Your task to perform on an android device: Open display settings Image 0: 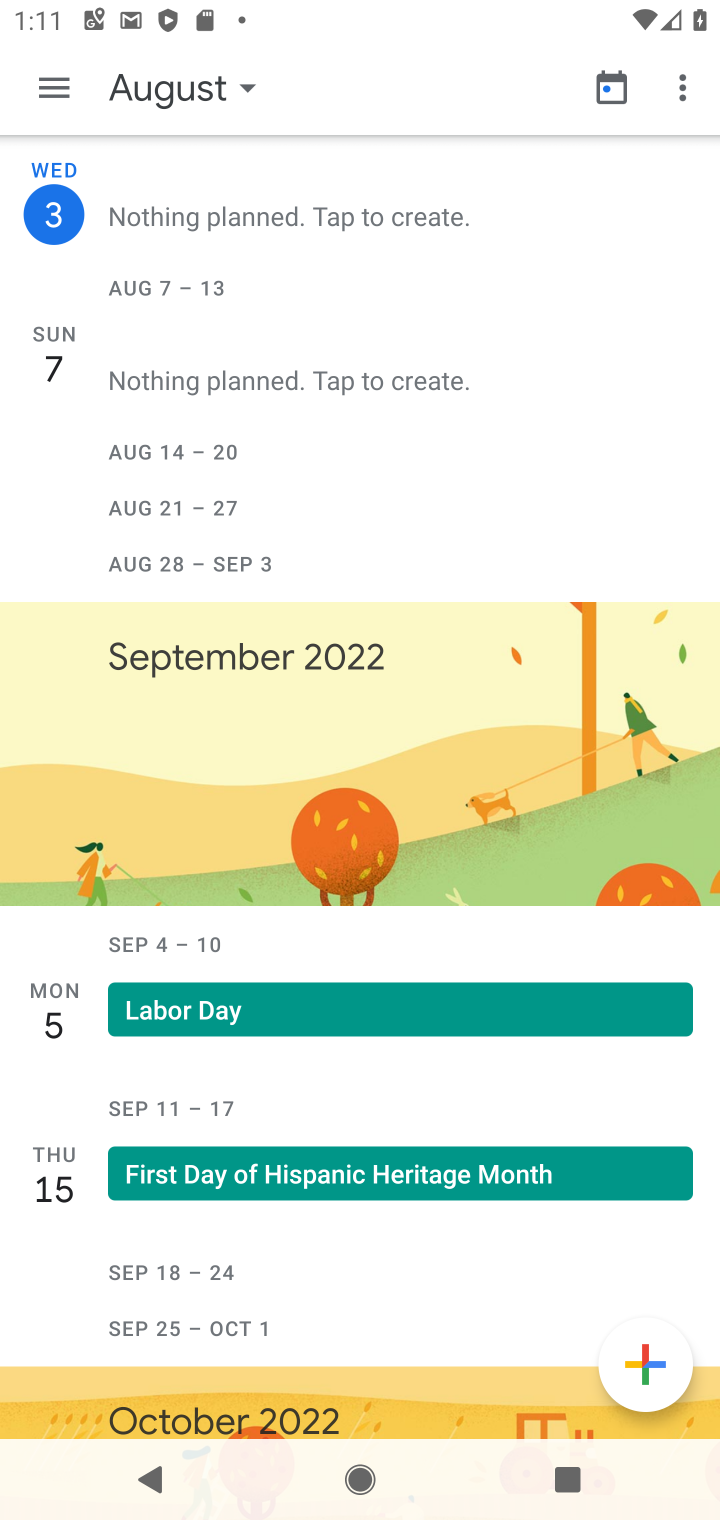
Step 0: press home button
Your task to perform on an android device: Open display settings Image 1: 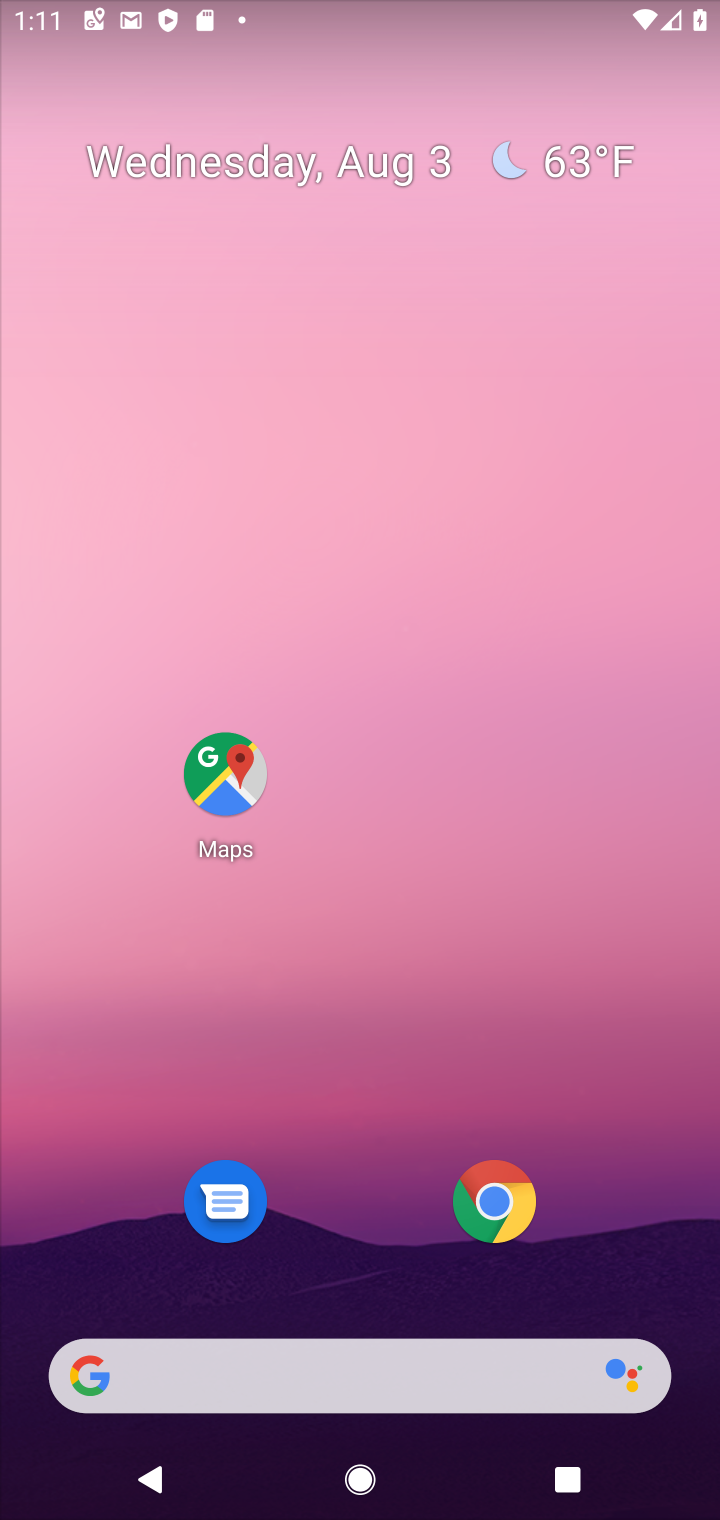
Step 1: press home button
Your task to perform on an android device: Open display settings Image 2: 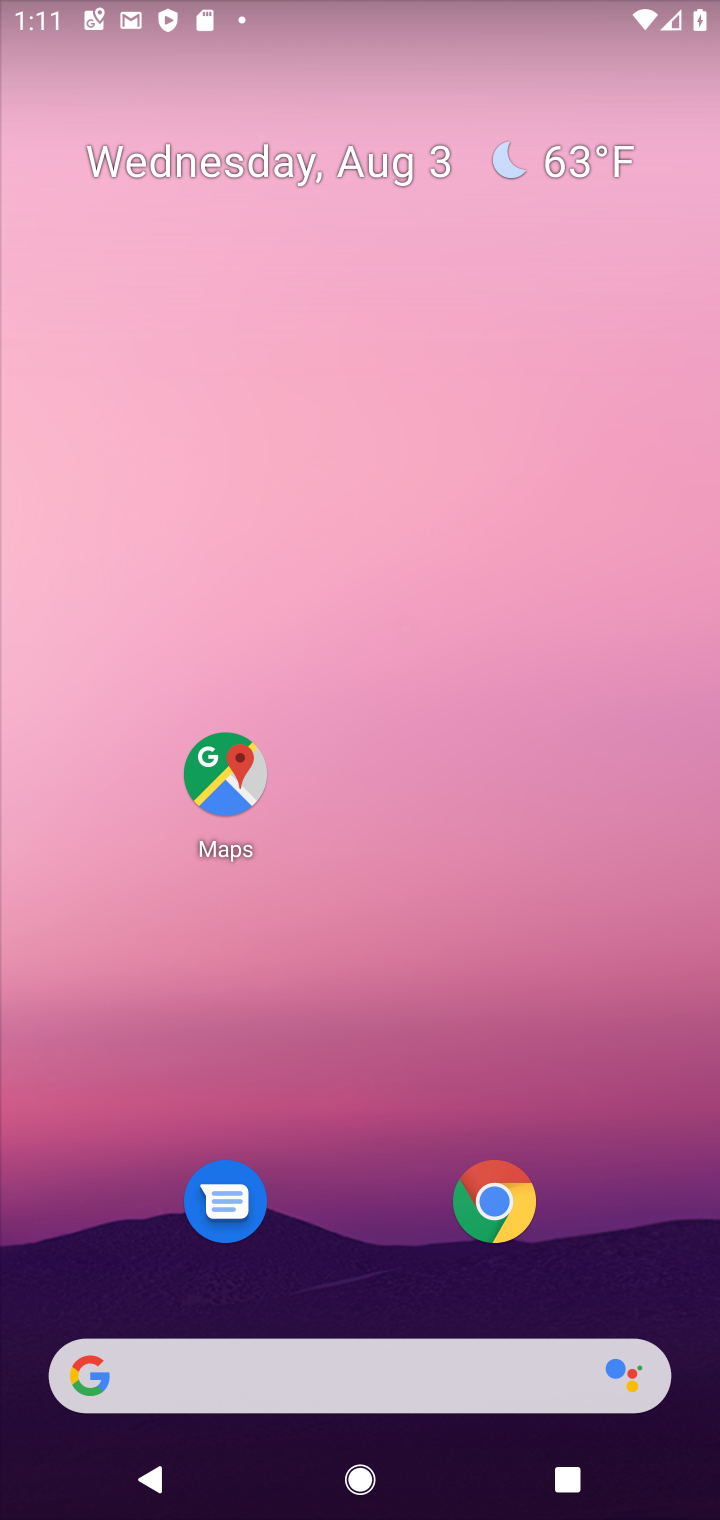
Step 2: drag from (303, 1329) to (611, 155)
Your task to perform on an android device: Open display settings Image 3: 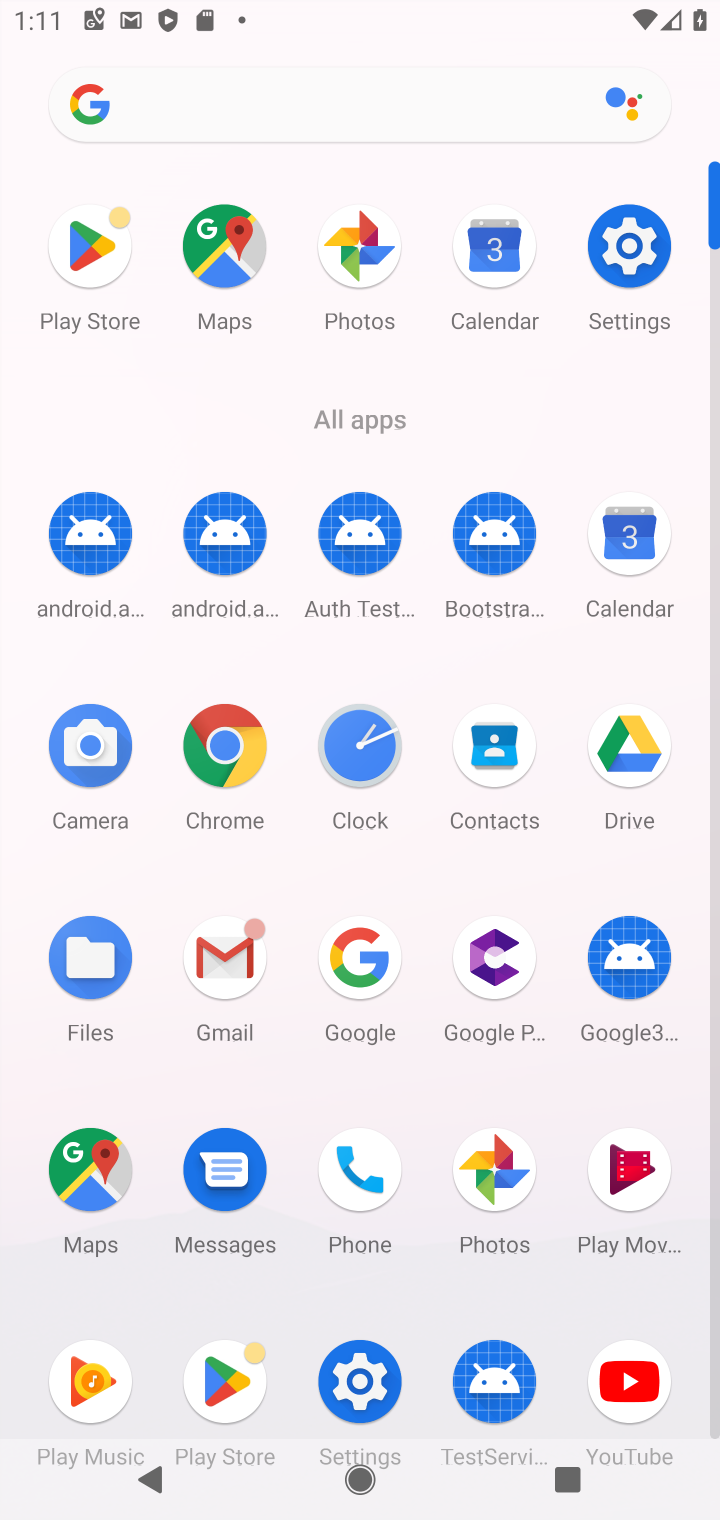
Step 3: click (622, 243)
Your task to perform on an android device: Open display settings Image 4: 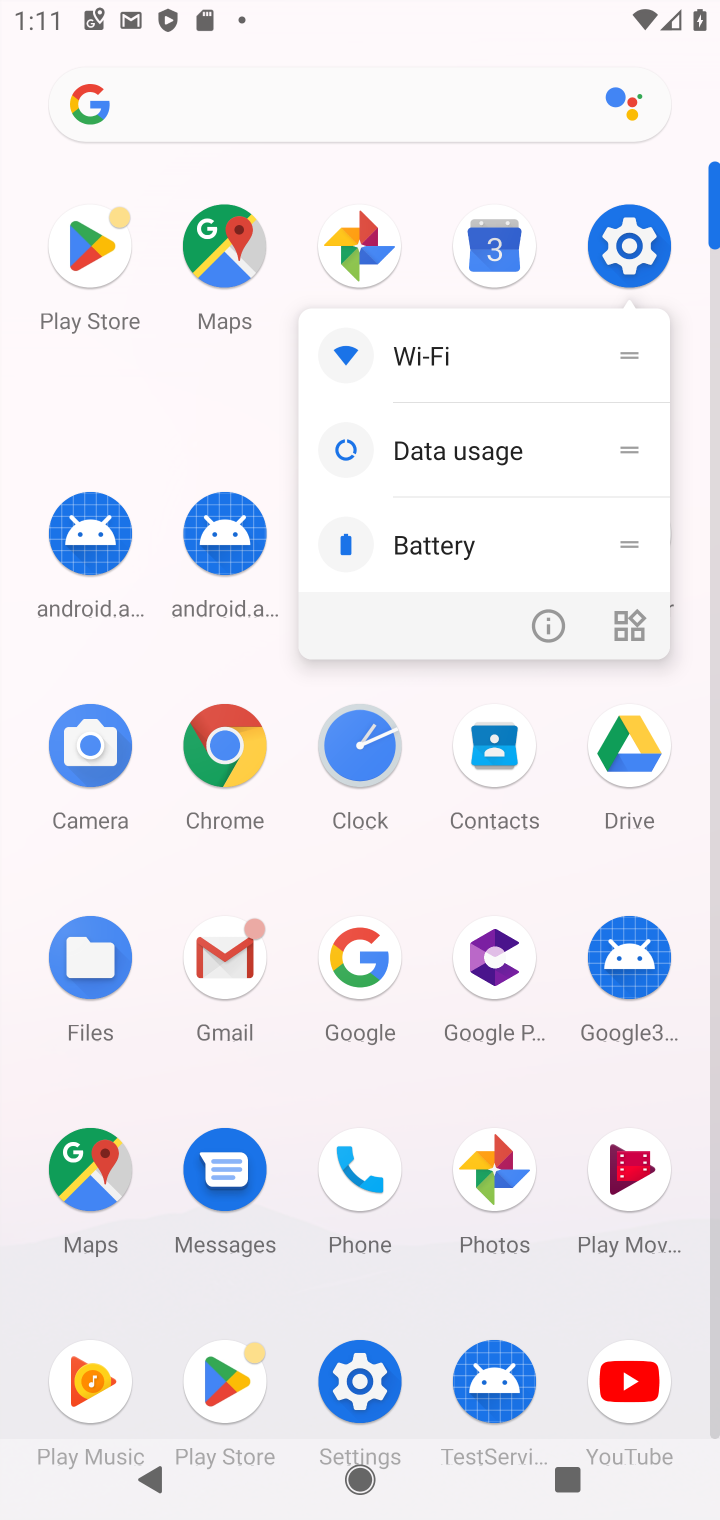
Step 4: click (622, 243)
Your task to perform on an android device: Open display settings Image 5: 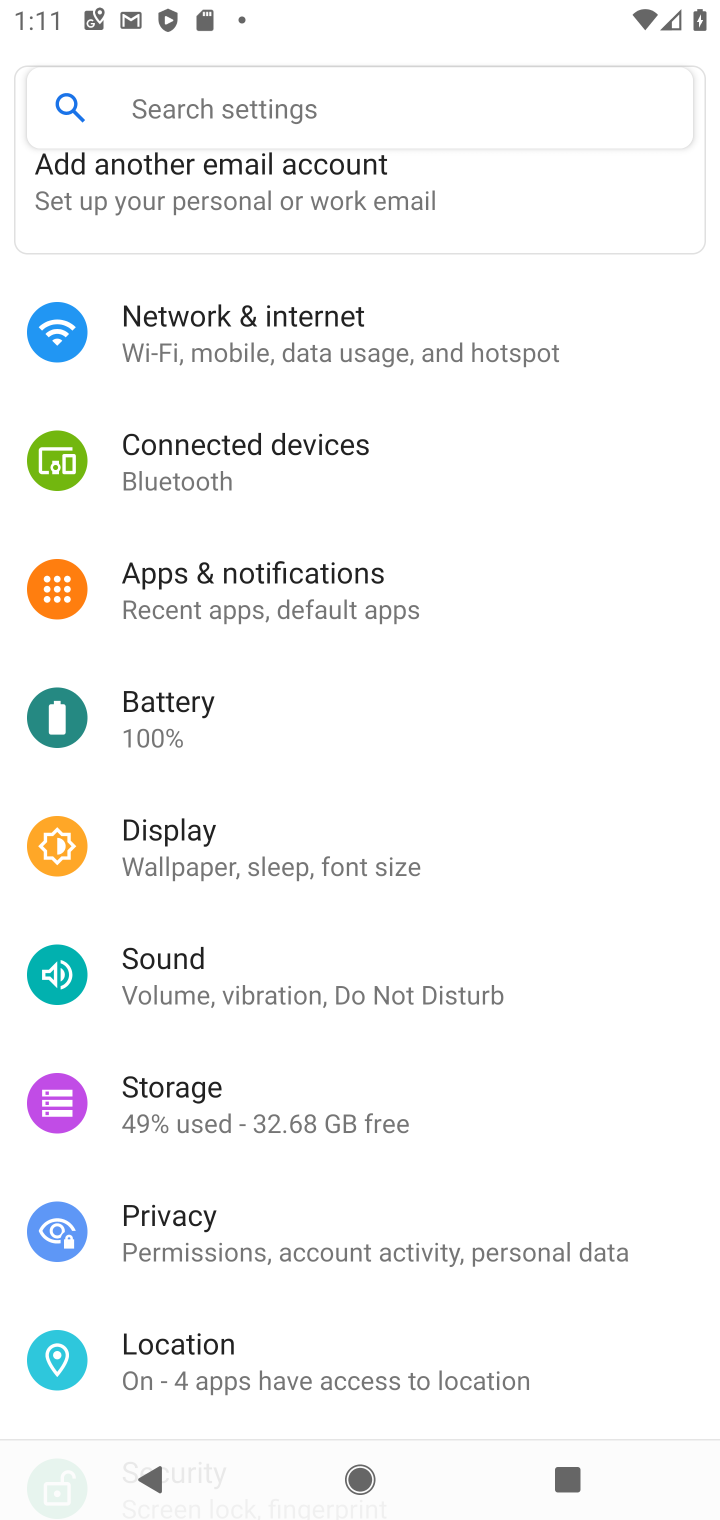
Step 5: drag from (360, 1111) to (564, 298)
Your task to perform on an android device: Open display settings Image 6: 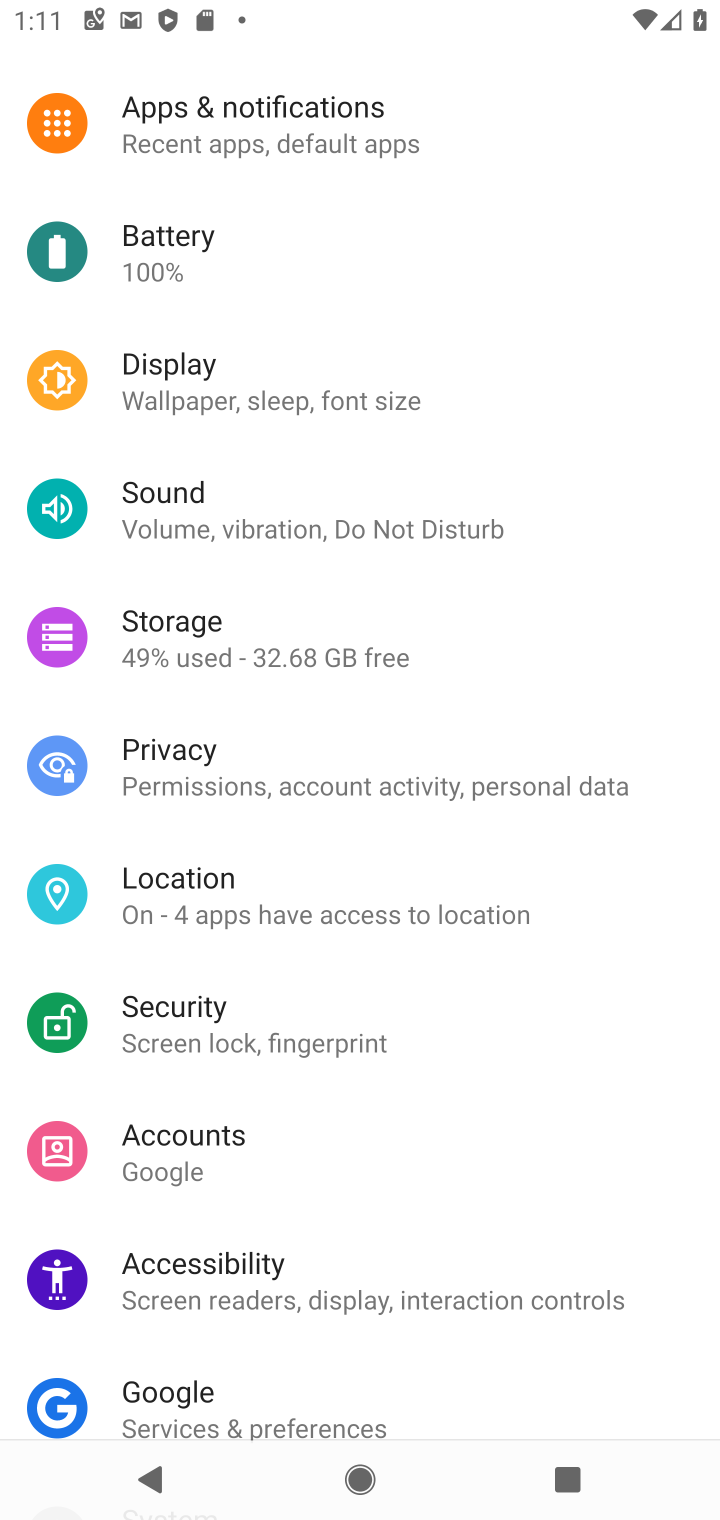
Step 6: drag from (498, 1191) to (715, 255)
Your task to perform on an android device: Open display settings Image 7: 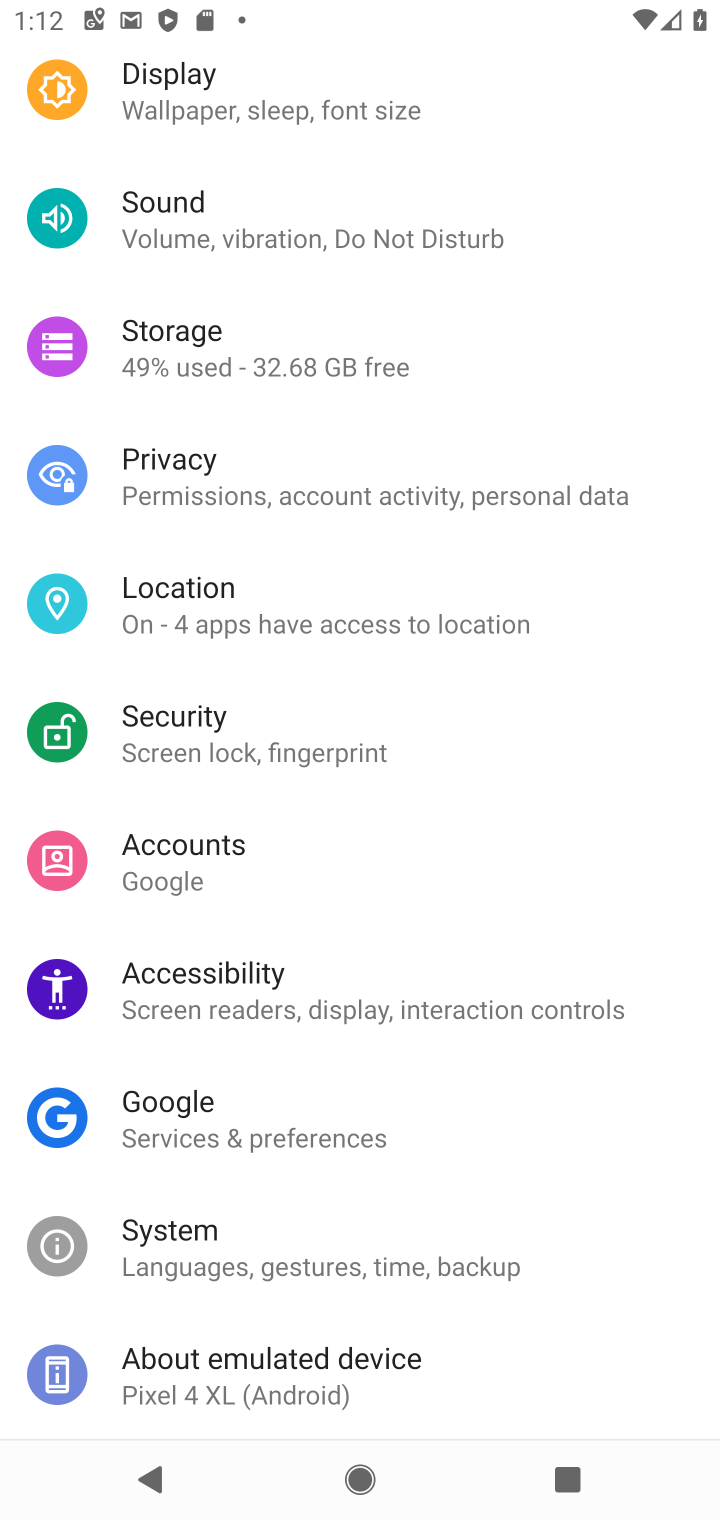
Step 7: drag from (409, 150) to (416, 1164)
Your task to perform on an android device: Open display settings Image 8: 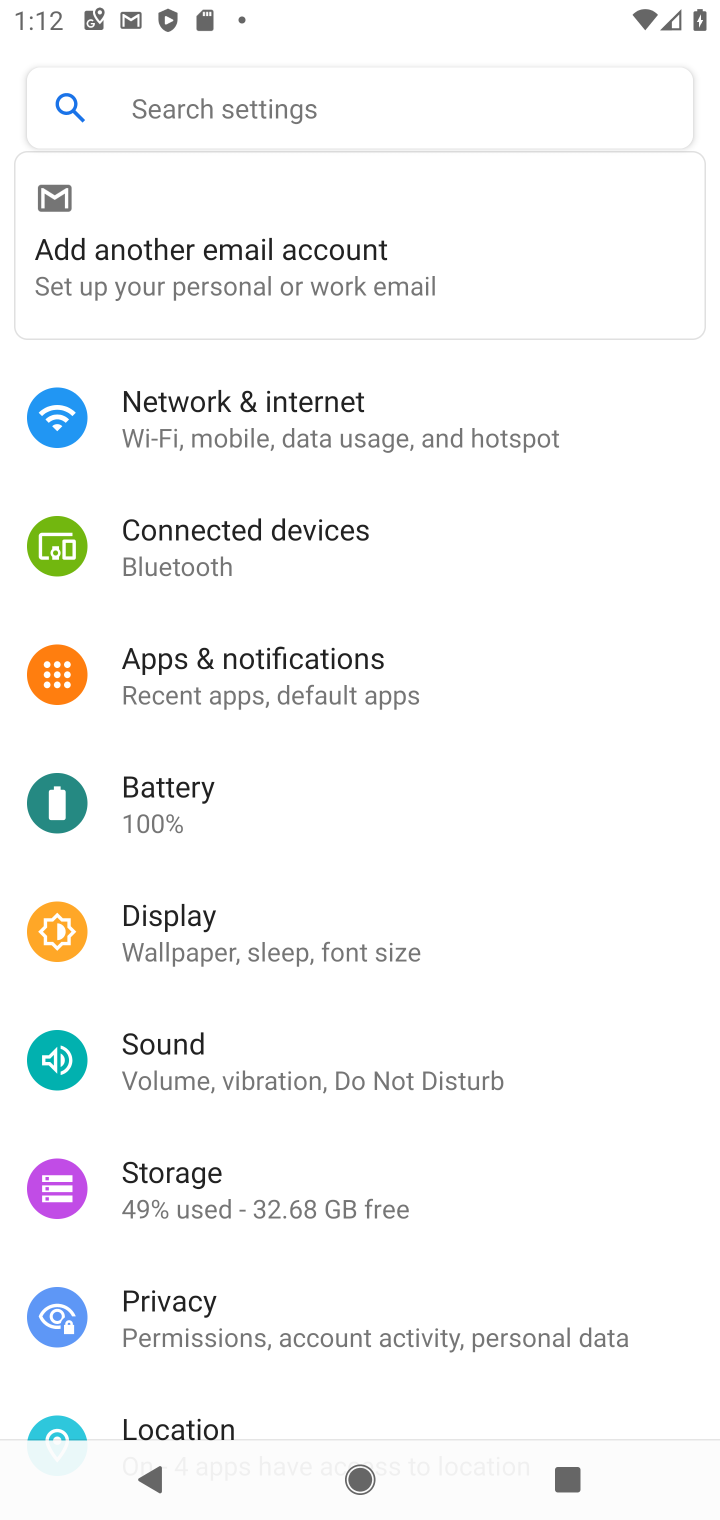
Step 8: click (258, 931)
Your task to perform on an android device: Open display settings Image 9: 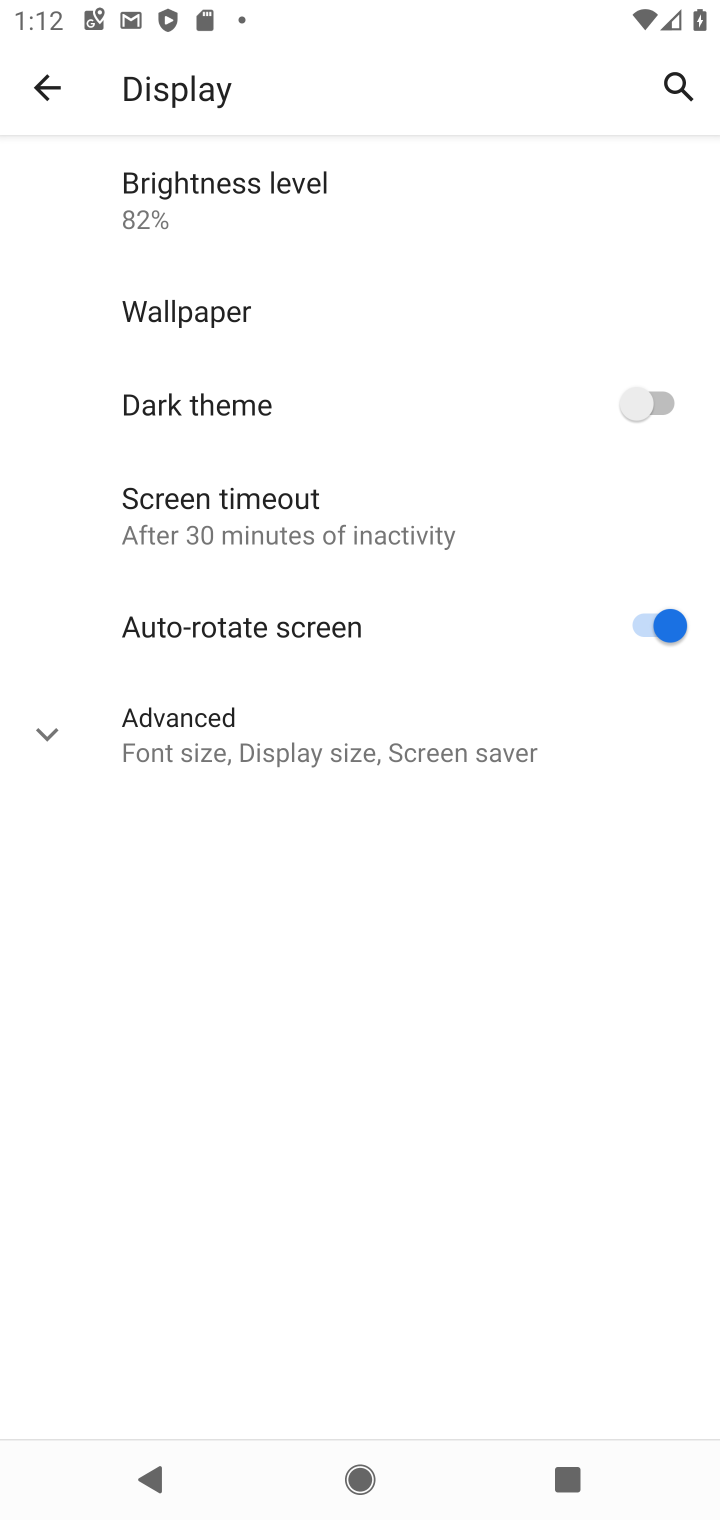
Step 9: task complete